Your task to perform on an android device: install app "McDonald's" Image 0: 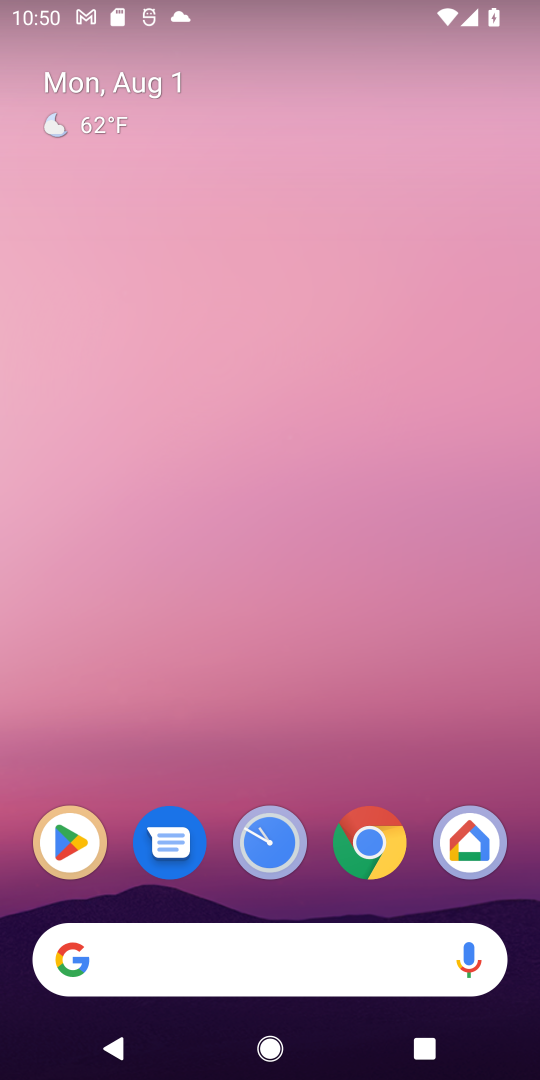
Step 0: click (85, 829)
Your task to perform on an android device: install app "McDonald's" Image 1: 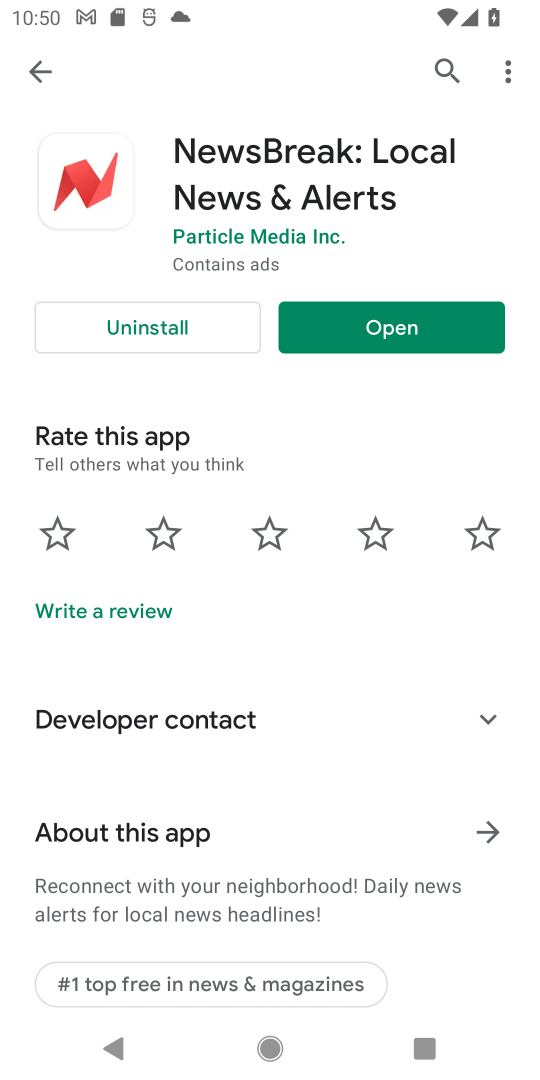
Step 1: click (444, 65)
Your task to perform on an android device: install app "McDonald's" Image 2: 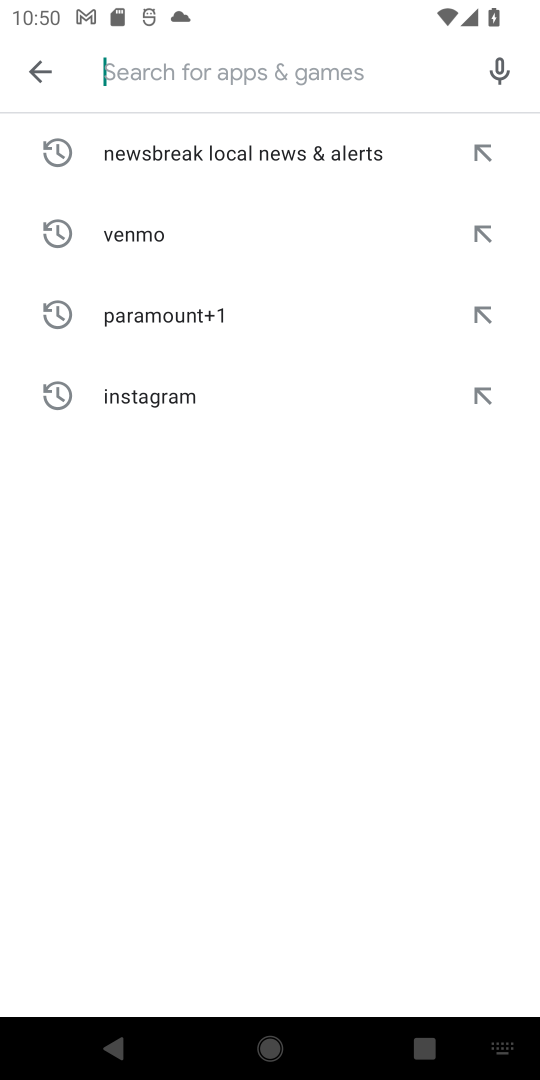
Step 2: click (261, 71)
Your task to perform on an android device: install app "McDonald's" Image 3: 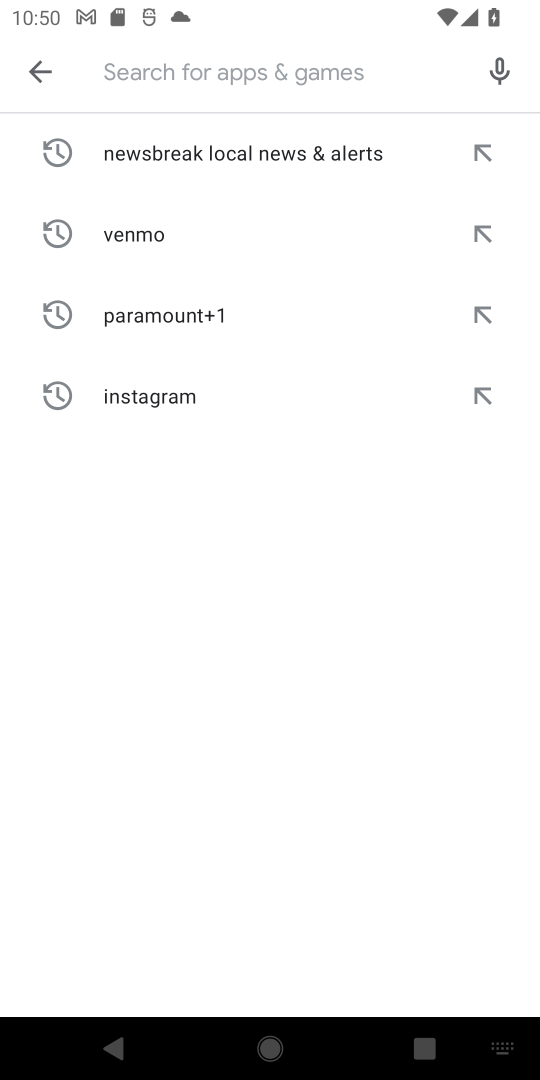
Step 3: type "McDonald's"
Your task to perform on an android device: install app "McDonald's" Image 4: 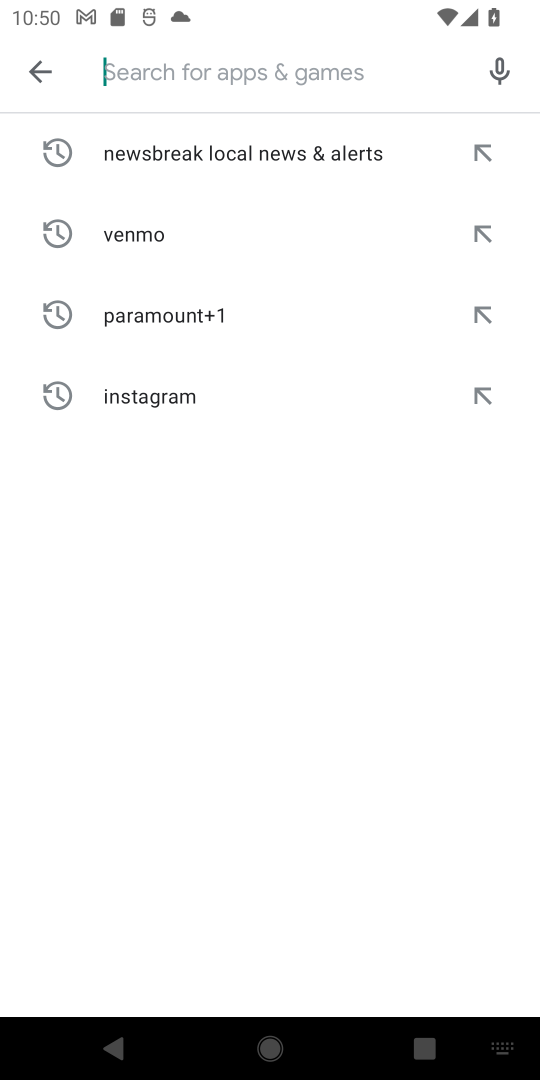
Step 4: click (298, 581)
Your task to perform on an android device: install app "McDonald's" Image 5: 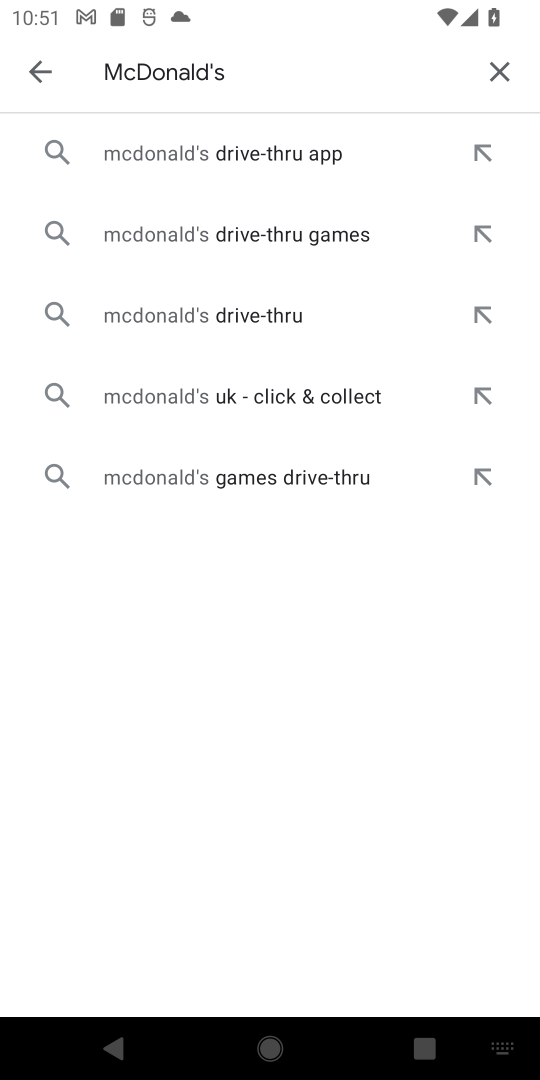
Step 5: click (278, 156)
Your task to perform on an android device: install app "McDonald's" Image 6: 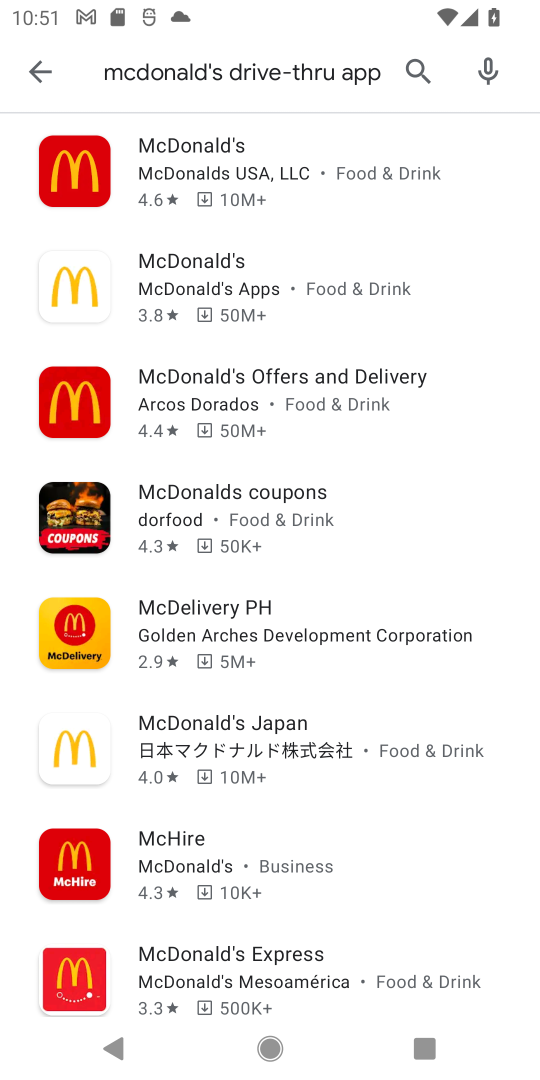
Step 6: click (257, 168)
Your task to perform on an android device: install app "McDonald's" Image 7: 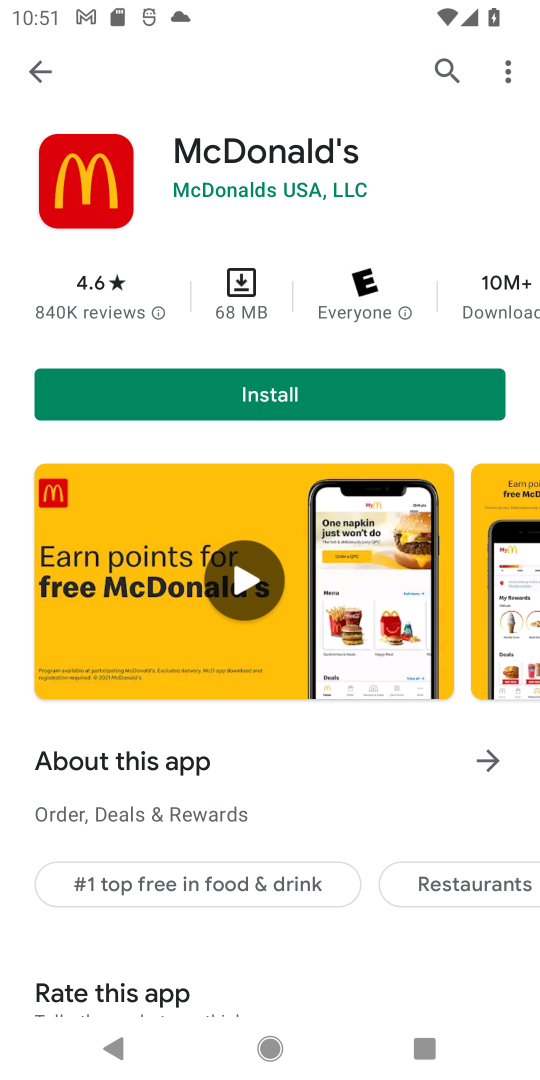
Step 7: click (201, 403)
Your task to perform on an android device: install app "McDonald's" Image 8: 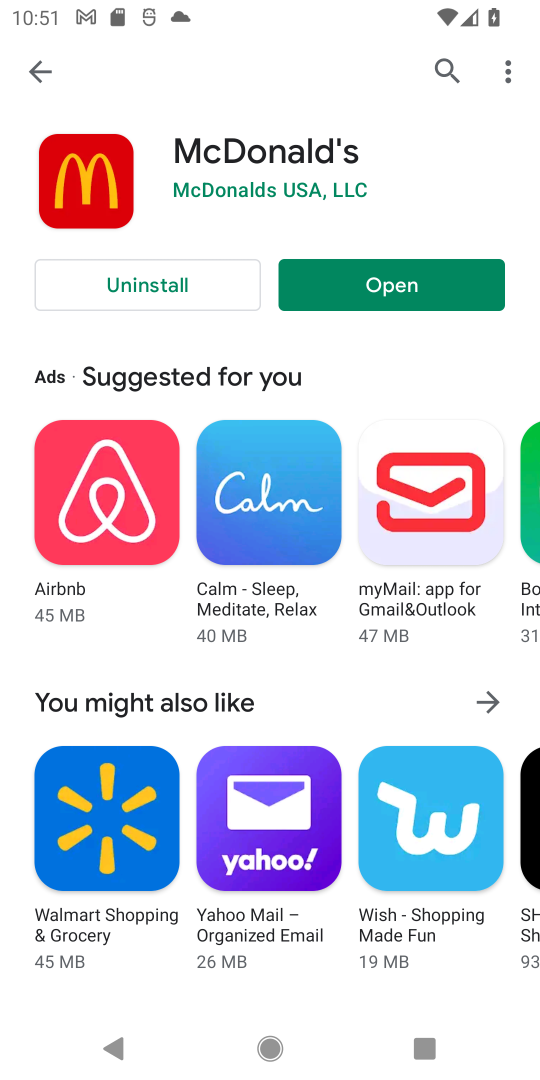
Step 8: task complete